Your task to perform on an android device: What's the weather going to be tomorrow? Image 0: 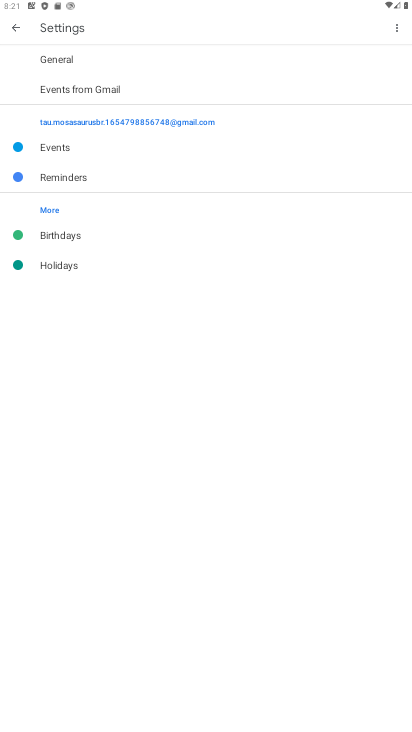
Step 0: press home button
Your task to perform on an android device: What's the weather going to be tomorrow? Image 1: 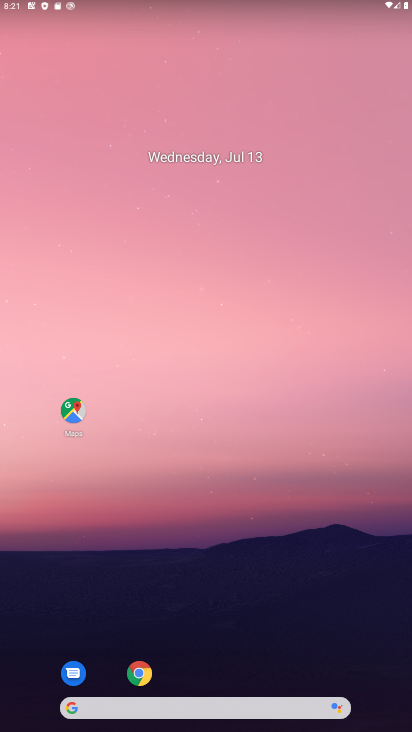
Step 1: drag from (322, 625) to (272, 110)
Your task to perform on an android device: What's the weather going to be tomorrow? Image 2: 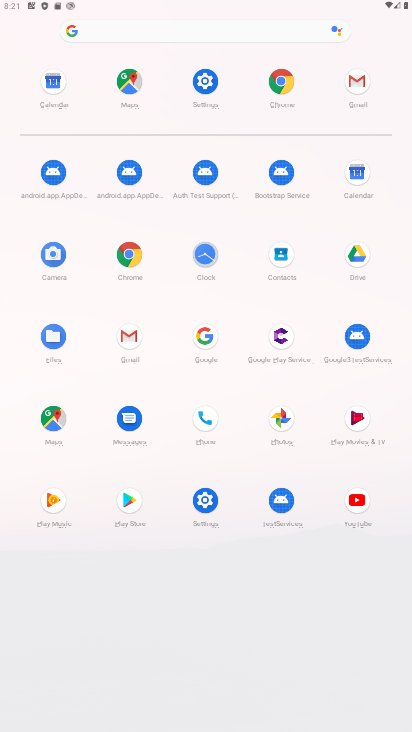
Step 2: click (283, 75)
Your task to perform on an android device: What's the weather going to be tomorrow? Image 3: 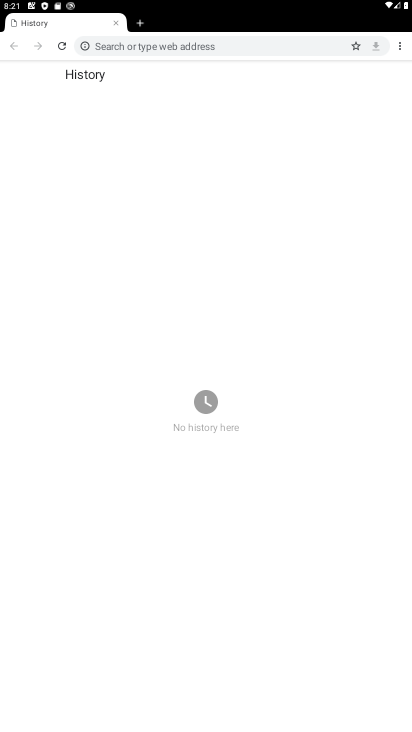
Step 3: click (229, 52)
Your task to perform on an android device: What's the weather going to be tomorrow? Image 4: 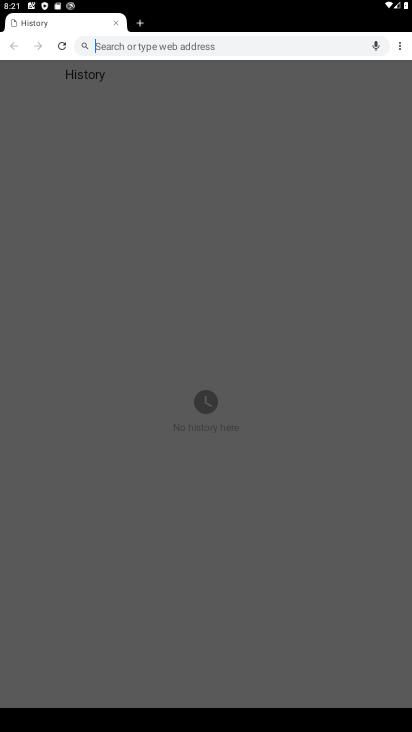
Step 4: type "weather"
Your task to perform on an android device: What's the weather going to be tomorrow? Image 5: 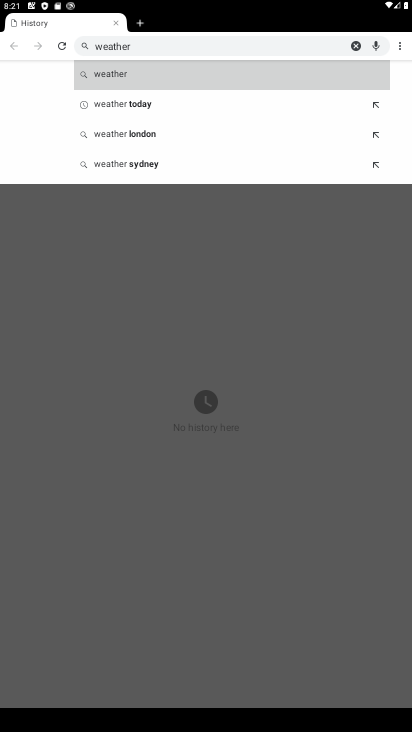
Step 5: click (106, 73)
Your task to perform on an android device: What's the weather going to be tomorrow? Image 6: 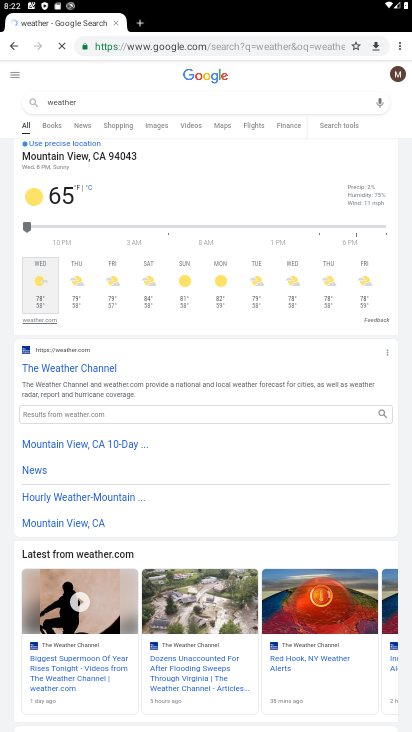
Step 6: click (81, 276)
Your task to perform on an android device: What's the weather going to be tomorrow? Image 7: 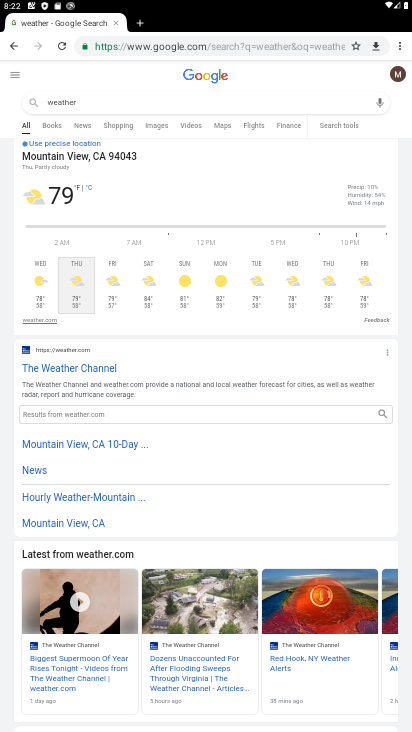
Step 7: task complete